Your task to perform on an android device: turn on data saver in the chrome app Image 0: 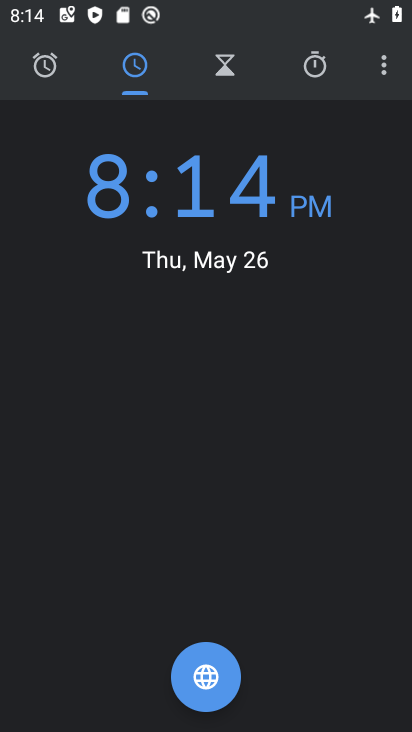
Step 0: press home button
Your task to perform on an android device: turn on data saver in the chrome app Image 1: 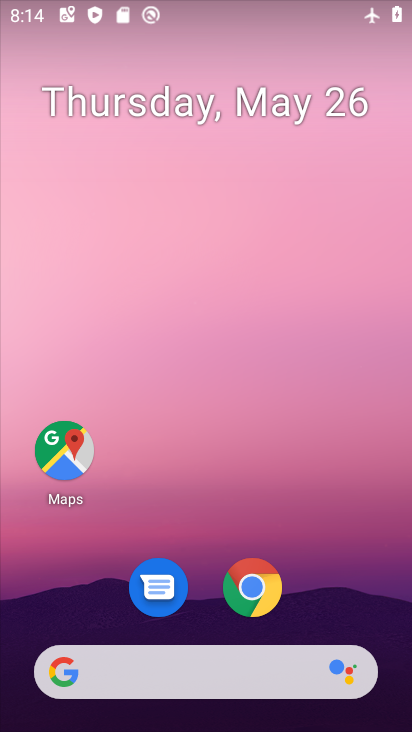
Step 1: click (242, 608)
Your task to perform on an android device: turn on data saver in the chrome app Image 2: 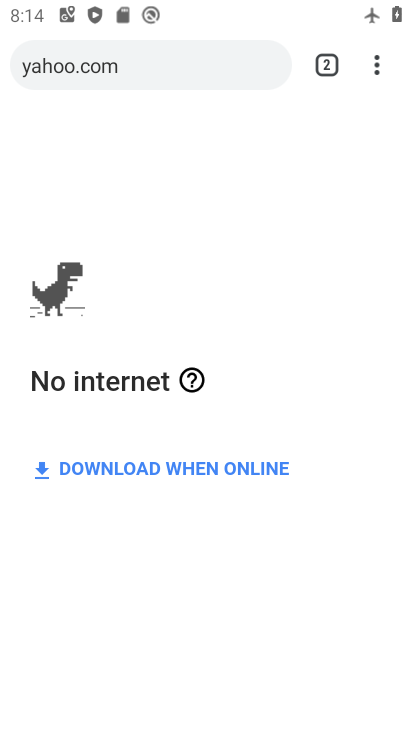
Step 2: drag from (374, 56) to (134, 633)
Your task to perform on an android device: turn on data saver in the chrome app Image 3: 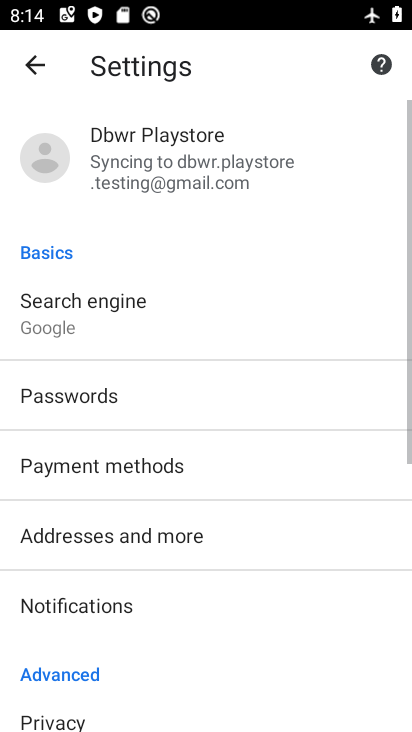
Step 3: drag from (134, 633) to (176, 267)
Your task to perform on an android device: turn on data saver in the chrome app Image 4: 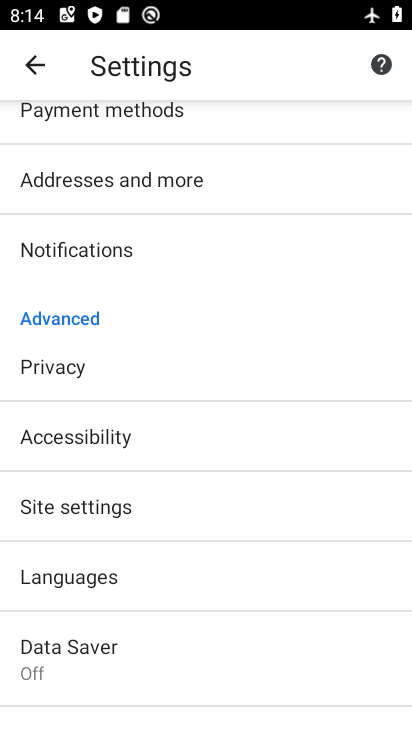
Step 4: click (121, 641)
Your task to perform on an android device: turn on data saver in the chrome app Image 5: 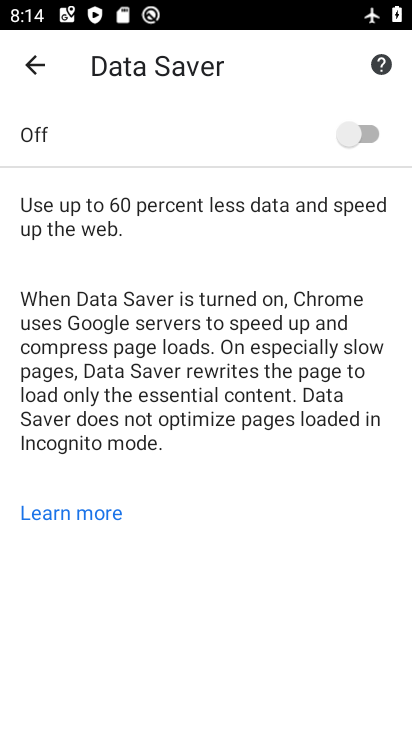
Step 5: click (373, 132)
Your task to perform on an android device: turn on data saver in the chrome app Image 6: 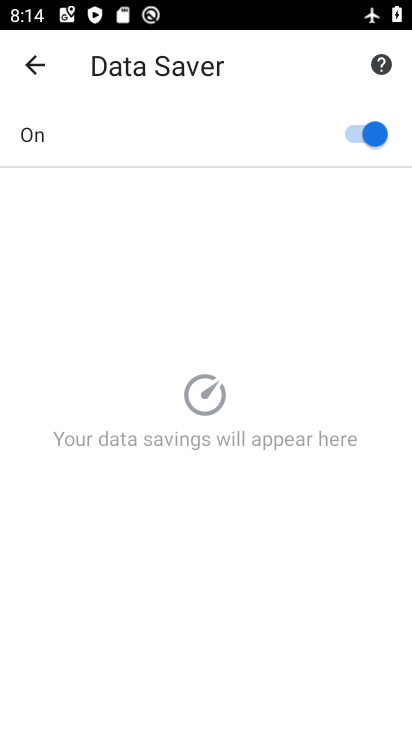
Step 6: task complete